Your task to perform on an android device: toggle translation in the chrome app Image 0: 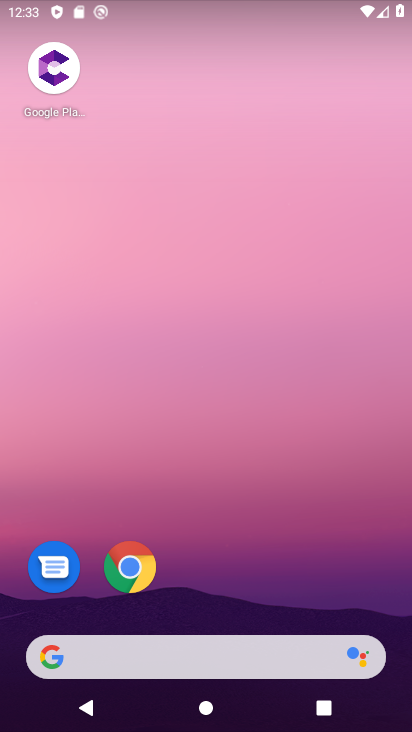
Step 0: click (134, 590)
Your task to perform on an android device: toggle translation in the chrome app Image 1: 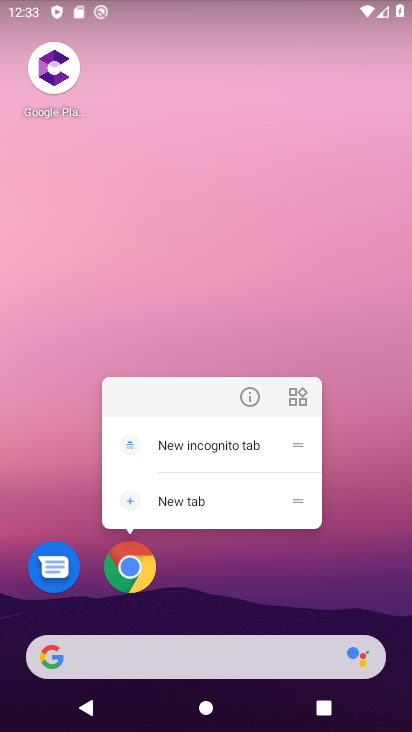
Step 1: click (123, 572)
Your task to perform on an android device: toggle translation in the chrome app Image 2: 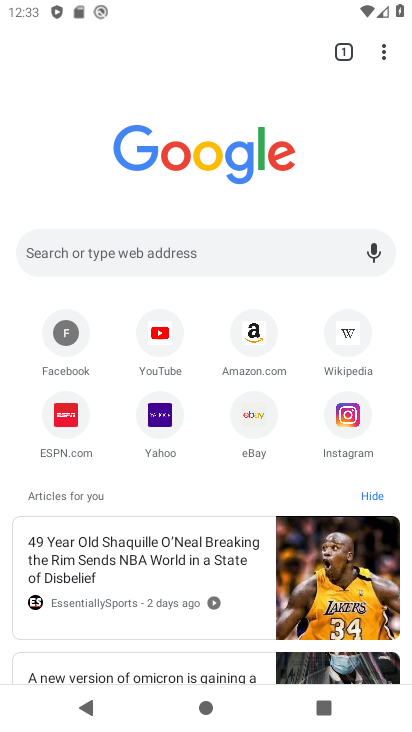
Step 2: drag from (383, 61) to (274, 483)
Your task to perform on an android device: toggle translation in the chrome app Image 3: 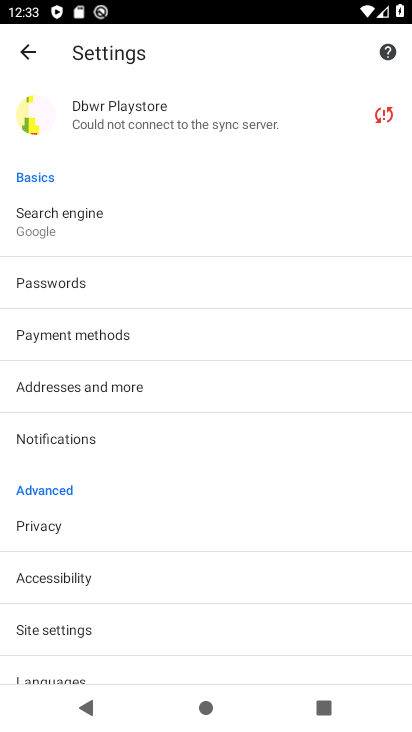
Step 3: drag from (234, 637) to (287, 402)
Your task to perform on an android device: toggle translation in the chrome app Image 4: 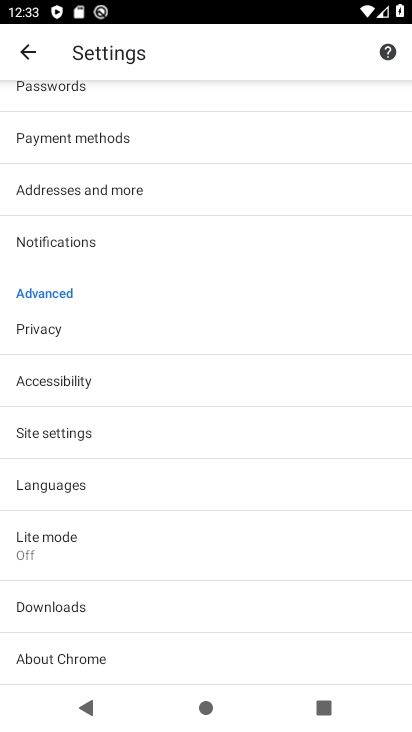
Step 4: click (109, 483)
Your task to perform on an android device: toggle translation in the chrome app Image 5: 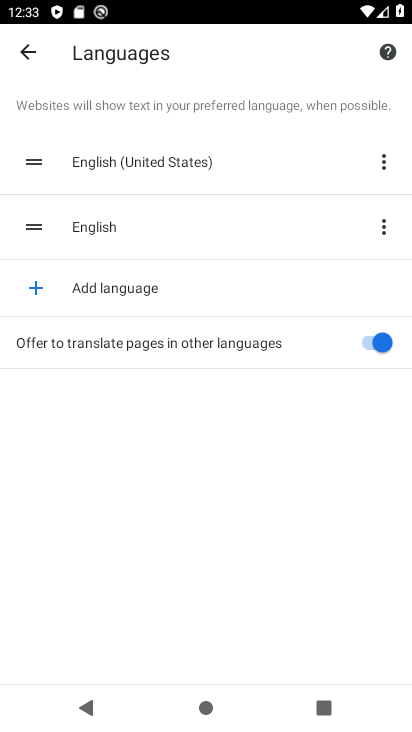
Step 5: click (376, 340)
Your task to perform on an android device: toggle translation in the chrome app Image 6: 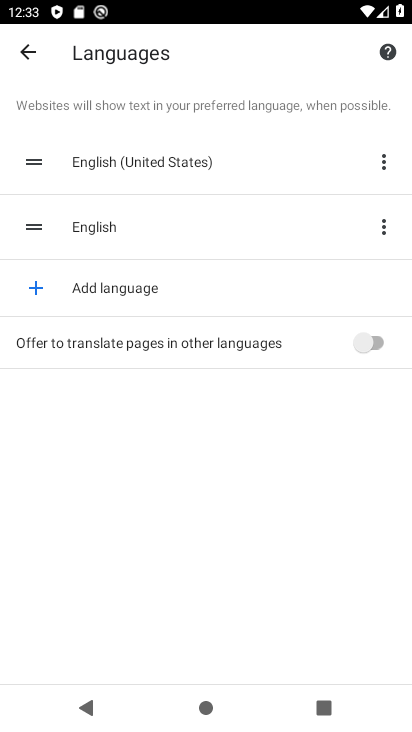
Step 6: task complete